Your task to perform on an android device: Go to Yahoo.com Image 0: 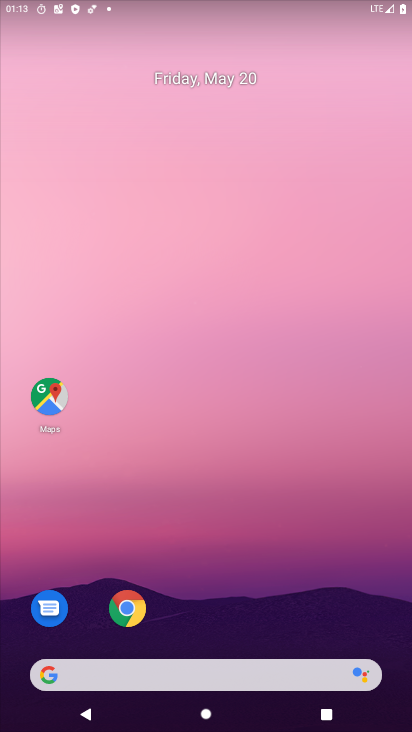
Step 0: drag from (298, 606) to (268, 156)
Your task to perform on an android device: Go to Yahoo.com Image 1: 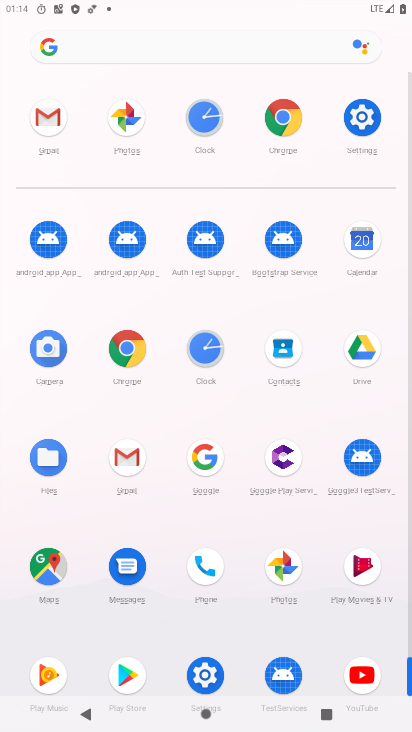
Step 1: click (277, 124)
Your task to perform on an android device: Go to Yahoo.com Image 2: 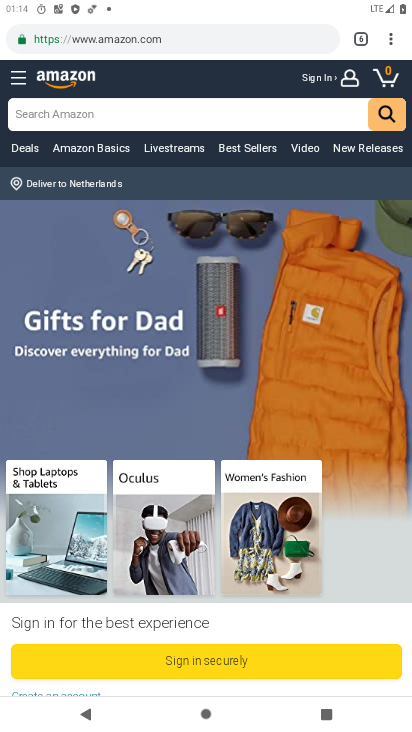
Step 2: click (164, 34)
Your task to perform on an android device: Go to Yahoo.com Image 3: 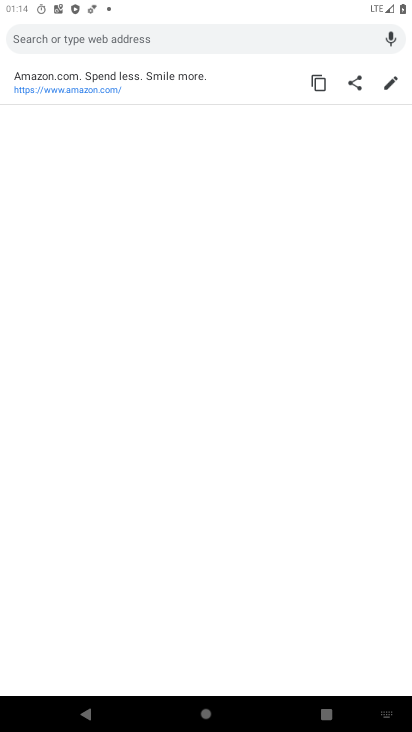
Step 3: type "yahoo.com"
Your task to perform on an android device: Go to Yahoo.com Image 4: 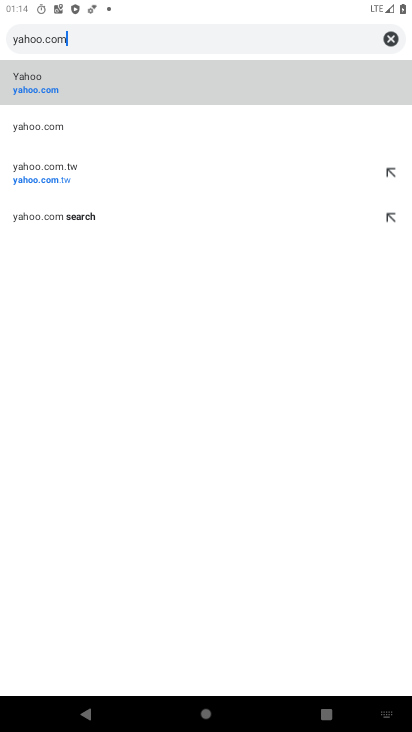
Step 4: click (122, 88)
Your task to perform on an android device: Go to Yahoo.com Image 5: 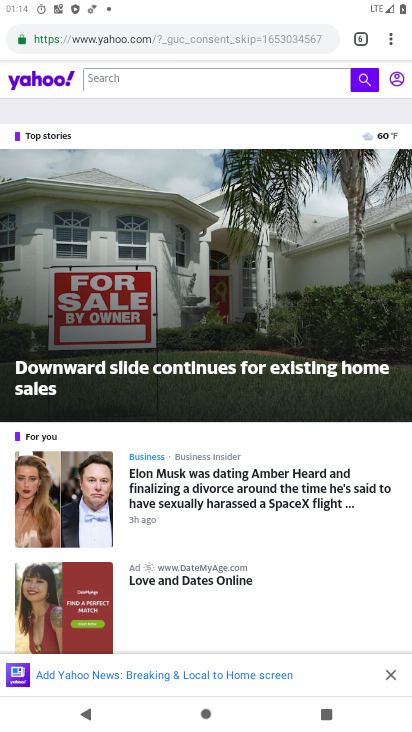
Step 5: task complete